Your task to perform on an android device: Open my contact list Image 0: 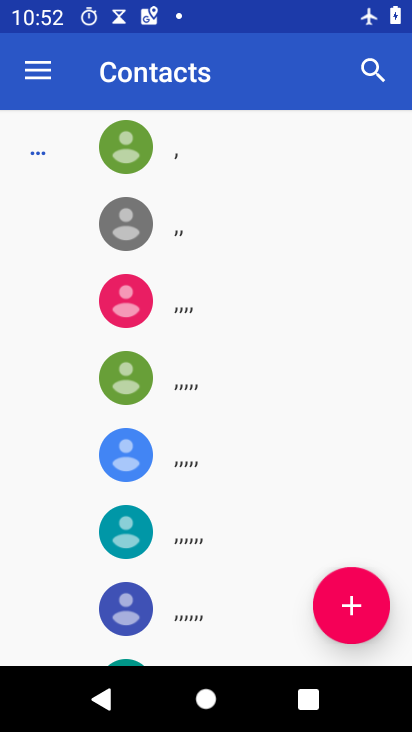
Step 0: drag from (240, 591) to (225, 152)
Your task to perform on an android device: Open my contact list Image 1: 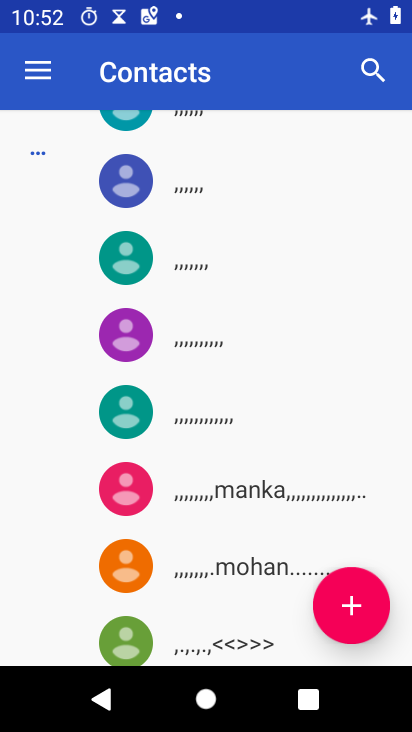
Step 1: task complete